Your task to perform on an android device: turn notification dots off Image 0: 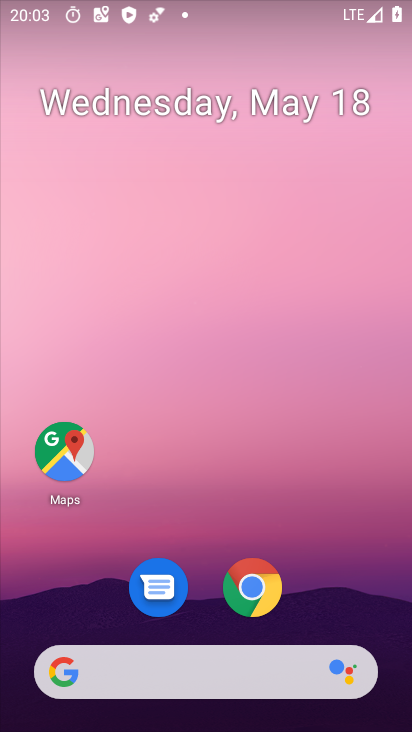
Step 0: drag from (196, 619) to (178, 259)
Your task to perform on an android device: turn notification dots off Image 1: 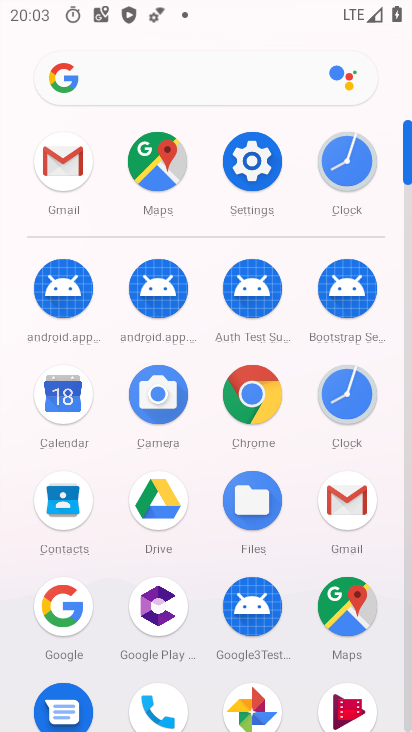
Step 1: click (248, 187)
Your task to perform on an android device: turn notification dots off Image 2: 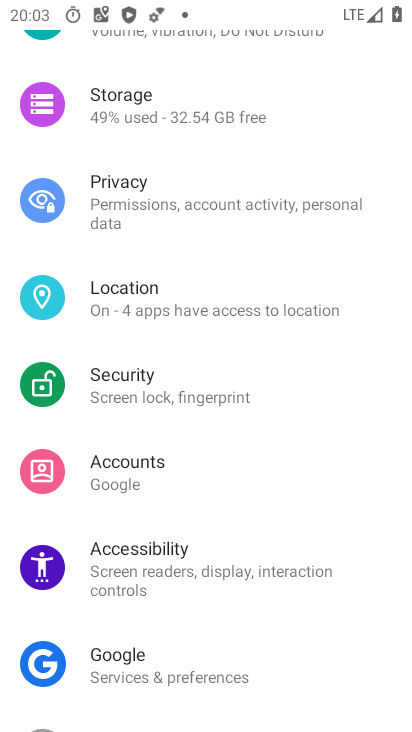
Step 2: drag from (162, 75) to (210, 510)
Your task to perform on an android device: turn notification dots off Image 3: 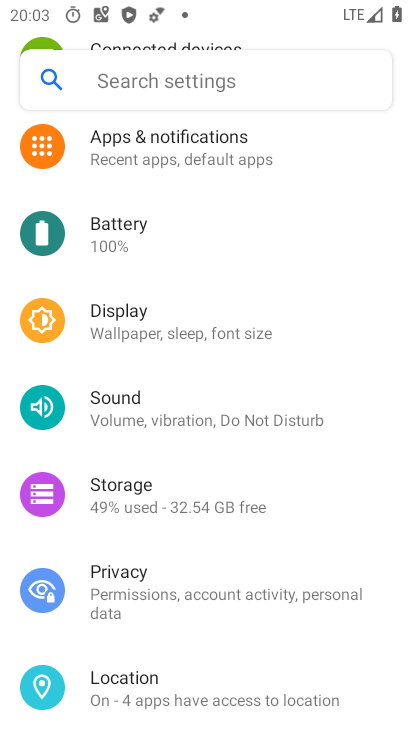
Step 3: click (160, 156)
Your task to perform on an android device: turn notification dots off Image 4: 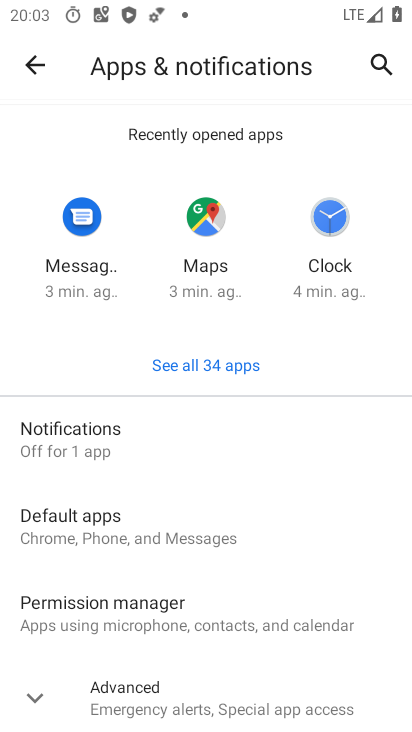
Step 4: click (27, 413)
Your task to perform on an android device: turn notification dots off Image 5: 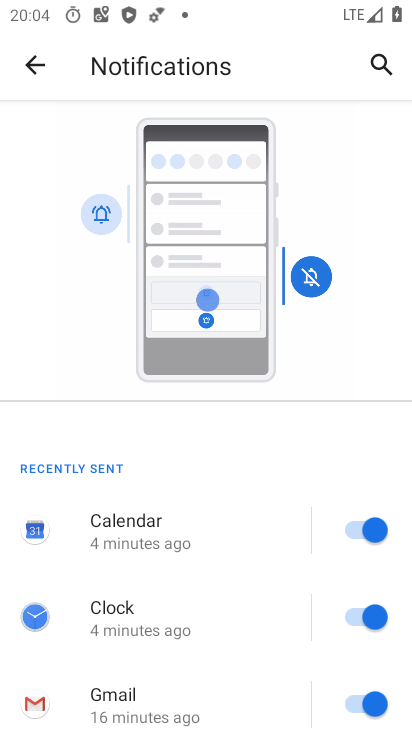
Step 5: drag from (117, 668) to (175, 118)
Your task to perform on an android device: turn notification dots off Image 6: 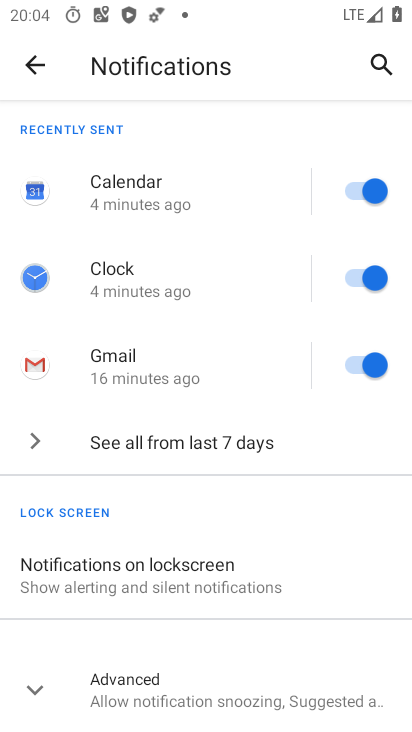
Step 6: click (122, 680)
Your task to perform on an android device: turn notification dots off Image 7: 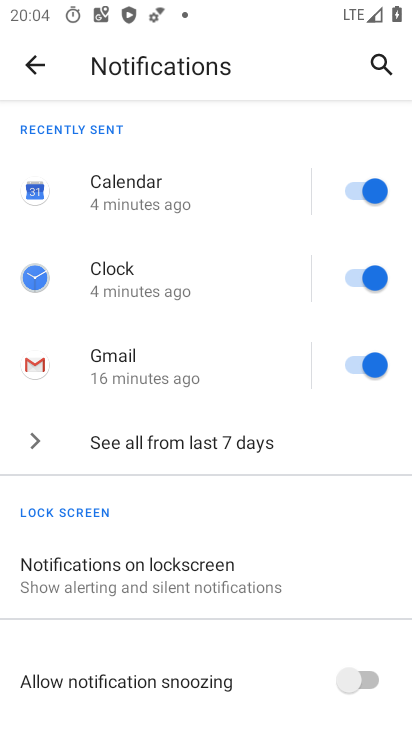
Step 7: drag from (199, 678) to (302, 3)
Your task to perform on an android device: turn notification dots off Image 8: 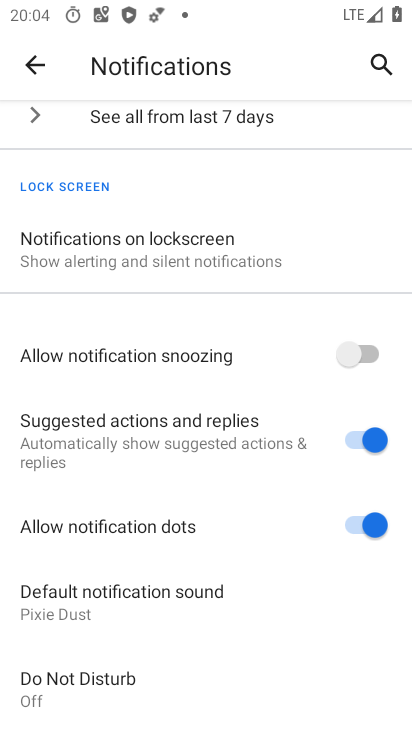
Step 8: click (371, 537)
Your task to perform on an android device: turn notification dots off Image 9: 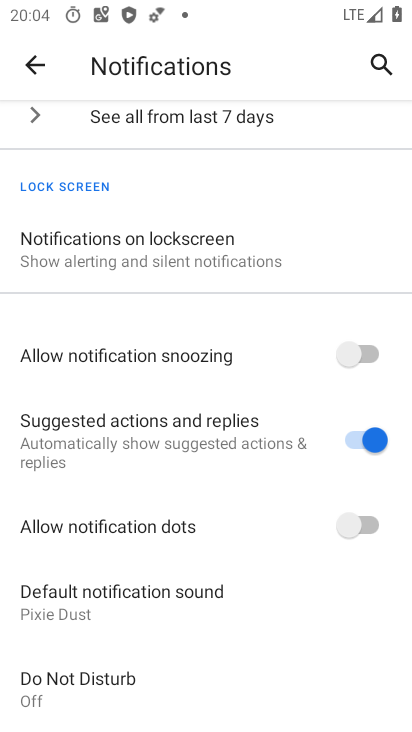
Step 9: task complete